Your task to perform on an android device: open a bookmark in the chrome app Image 0: 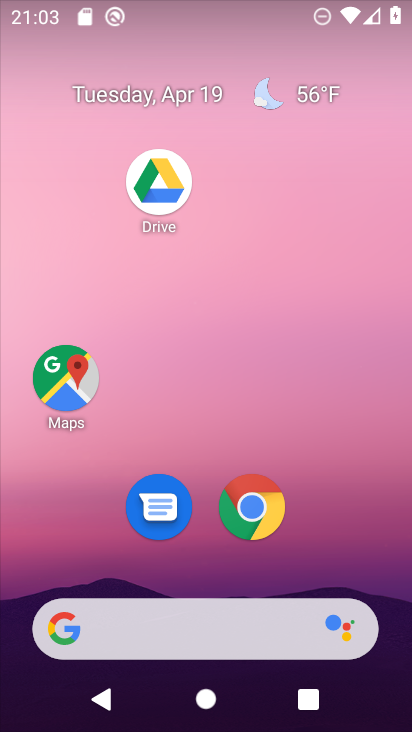
Step 0: click (268, 514)
Your task to perform on an android device: open a bookmark in the chrome app Image 1: 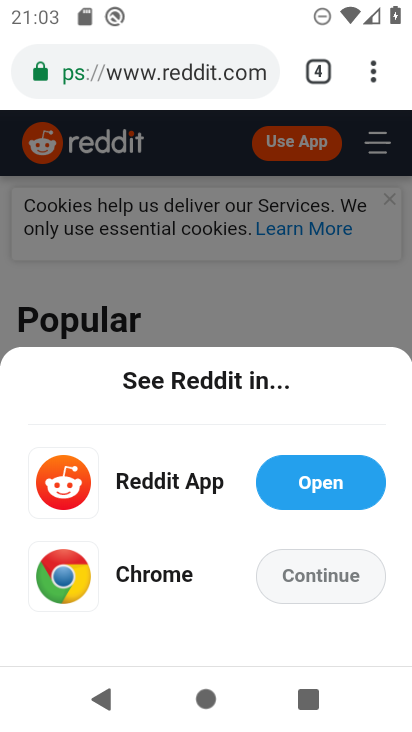
Step 1: click (368, 65)
Your task to perform on an android device: open a bookmark in the chrome app Image 2: 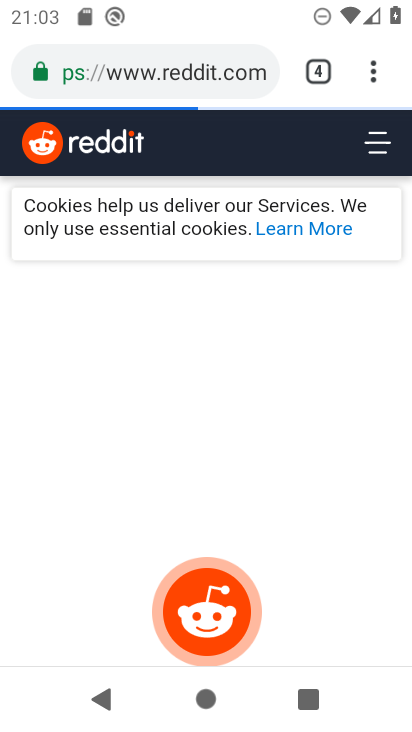
Step 2: click (368, 65)
Your task to perform on an android device: open a bookmark in the chrome app Image 3: 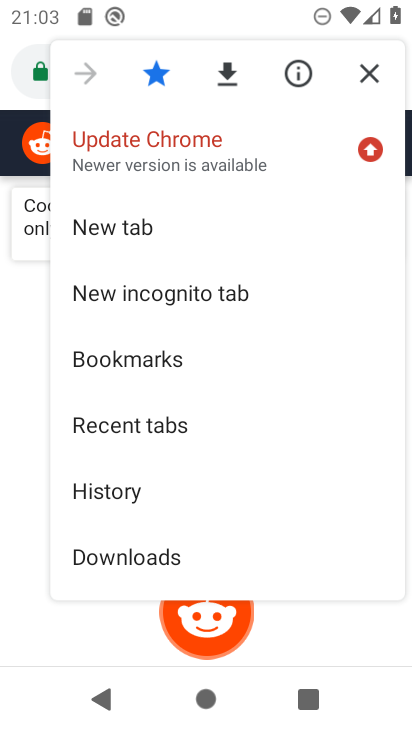
Step 3: click (189, 349)
Your task to perform on an android device: open a bookmark in the chrome app Image 4: 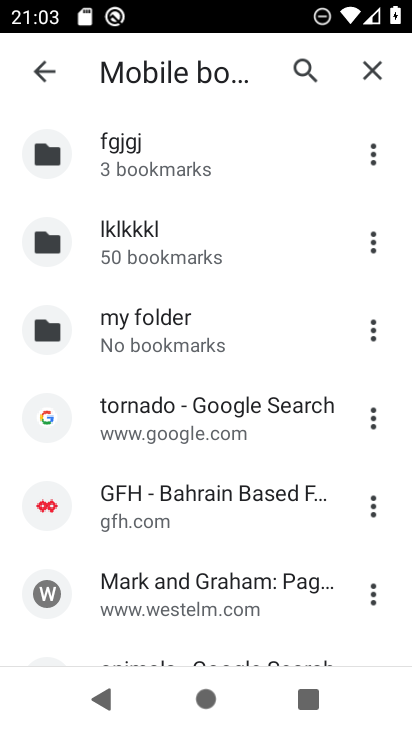
Step 4: click (217, 578)
Your task to perform on an android device: open a bookmark in the chrome app Image 5: 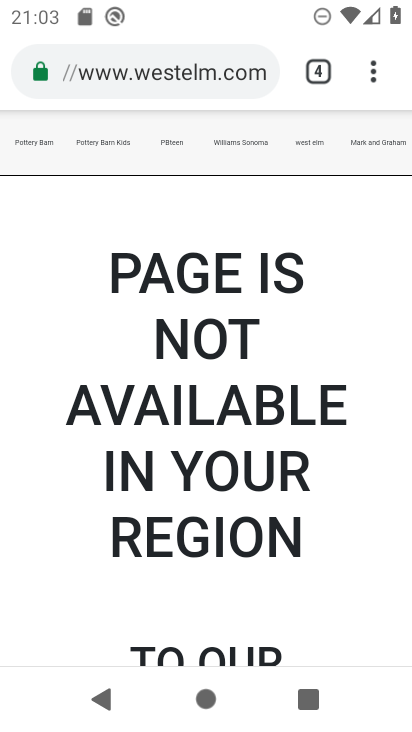
Step 5: task complete